Your task to perform on an android device: Is it going to rain today? Image 0: 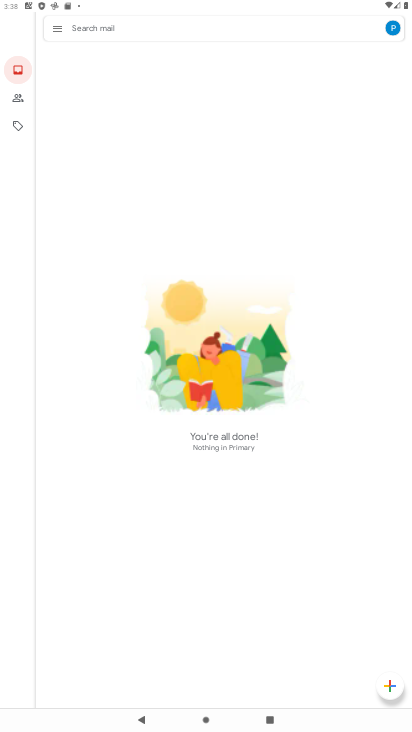
Step 0: press home button
Your task to perform on an android device: Is it going to rain today? Image 1: 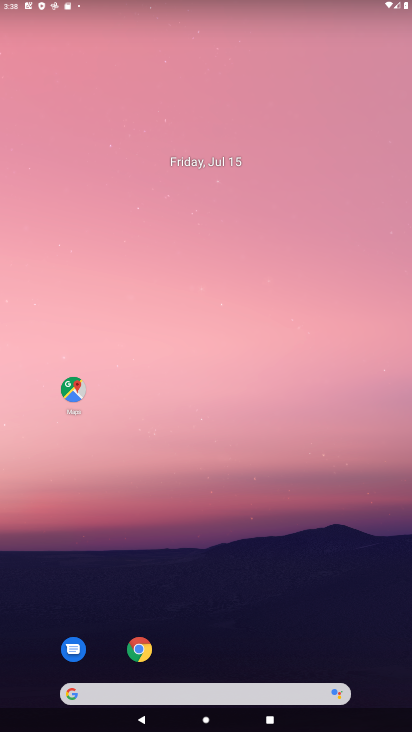
Step 1: drag from (302, 611) to (282, 120)
Your task to perform on an android device: Is it going to rain today? Image 2: 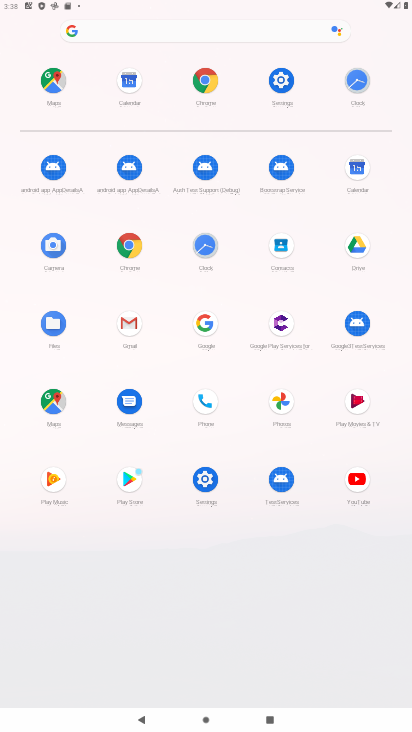
Step 2: click (210, 81)
Your task to perform on an android device: Is it going to rain today? Image 3: 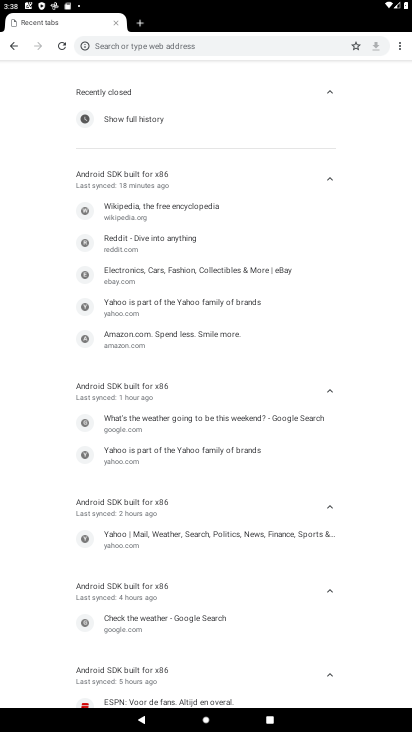
Step 3: click (219, 59)
Your task to perform on an android device: Is it going to rain today? Image 4: 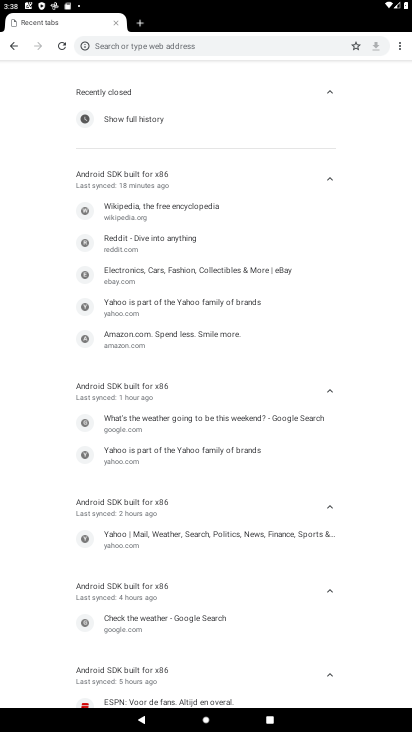
Step 4: click (211, 51)
Your task to perform on an android device: Is it going to rain today? Image 5: 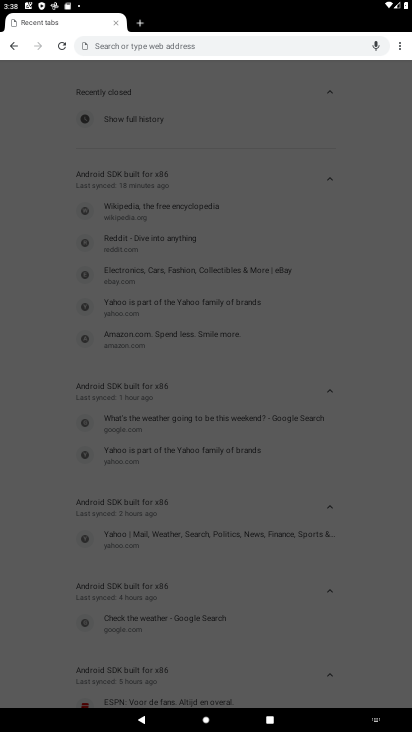
Step 5: type "weather"
Your task to perform on an android device: Is it going to rain today? Image 6: 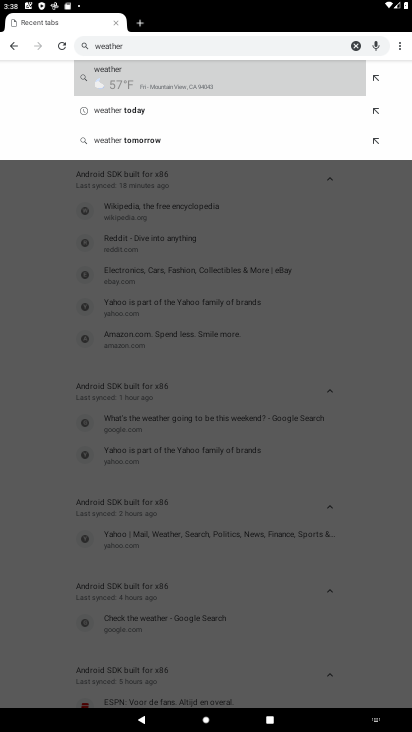
Step 6: click (118, 73)
Your task to perform on an android device: Is it going to rain today? Image 7: 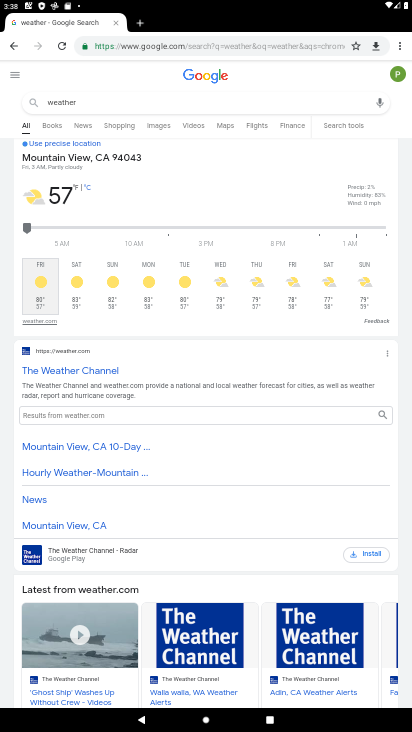
Step 7: task complete